Your task to perform on an android device: turn off picture-in-picture Image 0: 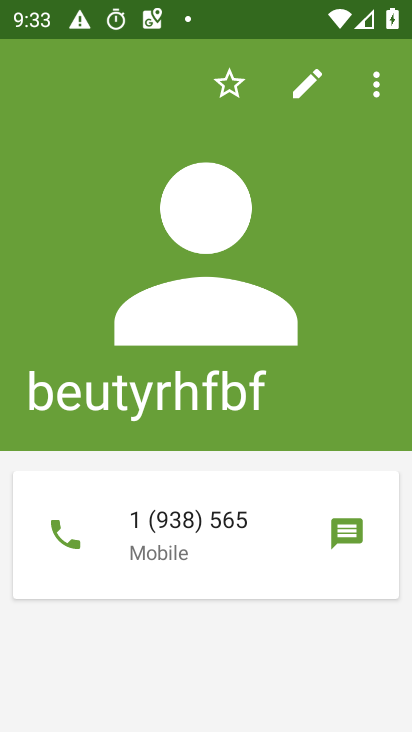
Step 0: press home button
Your task to perform on an android device: turn off picture-in-picture Image 1: 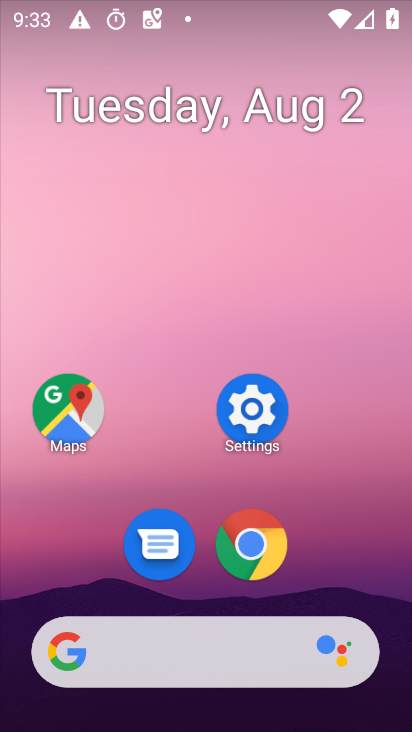
Step 1: click (241, 545)
Your task to perform on an android device: turn off picture-in-picture Image 2: 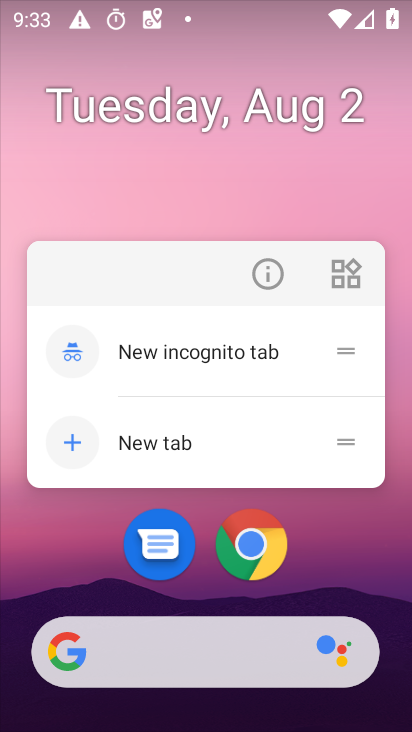
Step 2: click (267, 272)
Your task to perform on an android device: turn off picture-in-picture Image 3: 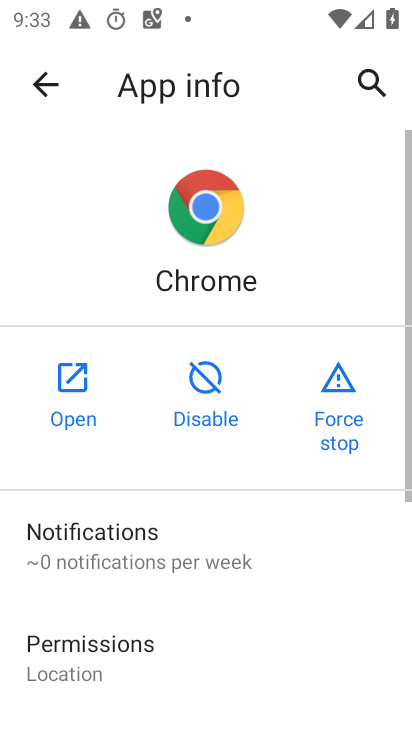
Step 3: drag from (213, 647) to (190, 149)
Your task to perform on an android device: turn off picture-in-picture Image 4: 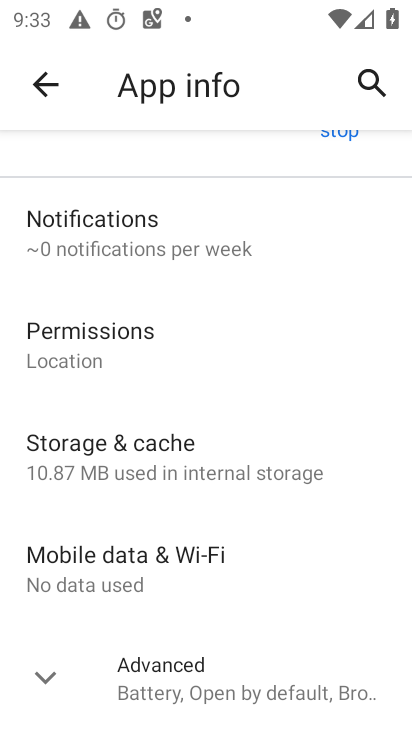
Step 4: drag from (209, 624) to (207, 237)
Your task to perform on an android device: turn off picture-in-picture Image 5: 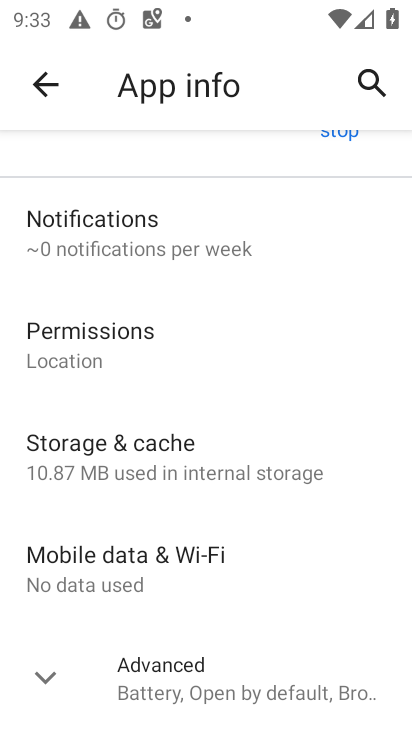
Step 5: click (168, 672)
Your task to perform on an android device: turn off picture-in-picture Image 6: 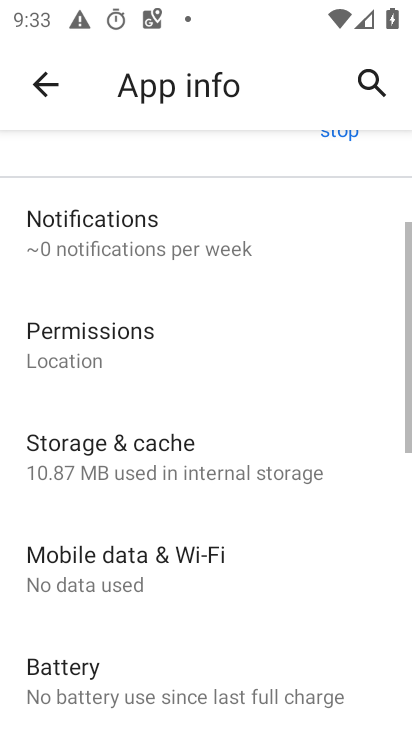
Step 6: drag from (216, 649) to (134, 116)
Your task to perform on an android device: turn off picture-in-picture Image 7: 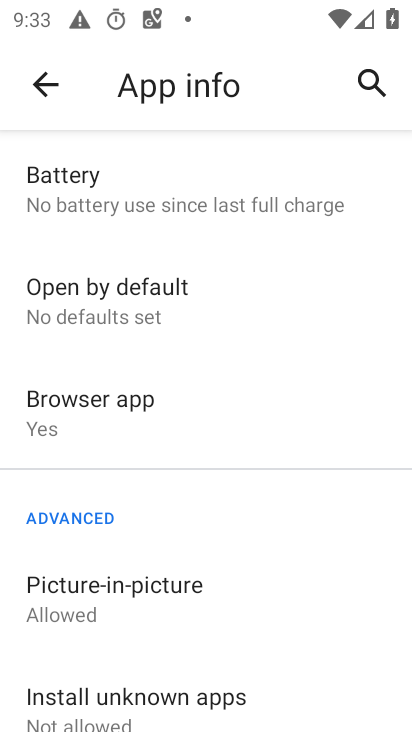
Step 7: click (94, 587)
Your task to perform on an android device: turn off picture-in-picture Image 8: 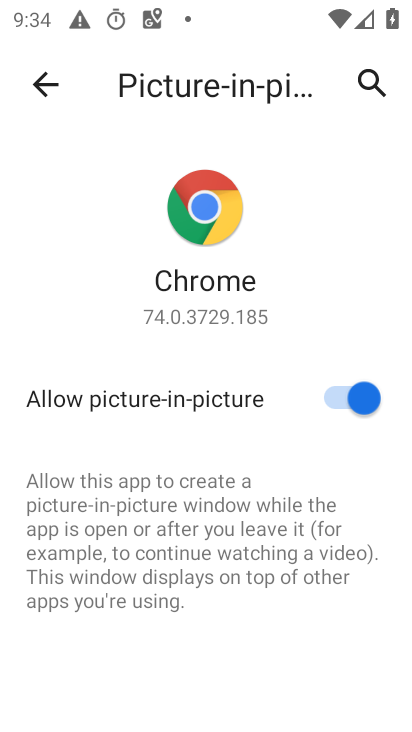
Step 8: click (346, 399)
Your task to perform on an android device: turn off picture-in-picture Image 9: 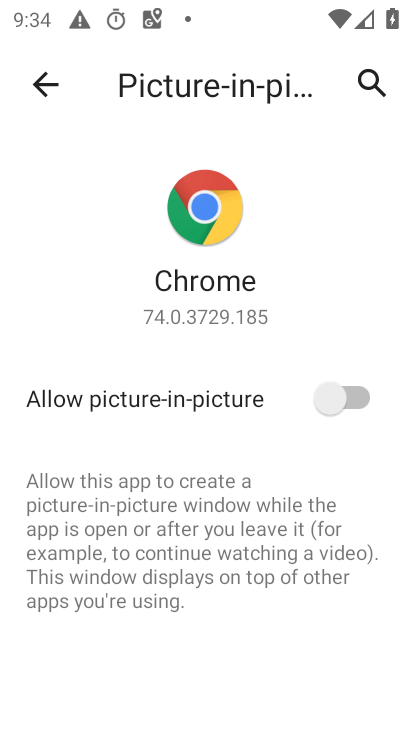
Step 9: task complete